Your task to perform on an android device: turn on the 12-hour format for clock Image 0: 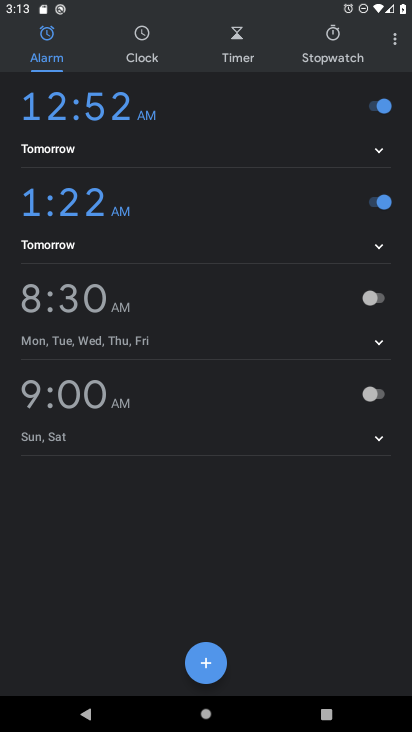
Step 0: click (393, 36)
Your task to perform on an android device: turn on the 12-hour format for clock Image 1: 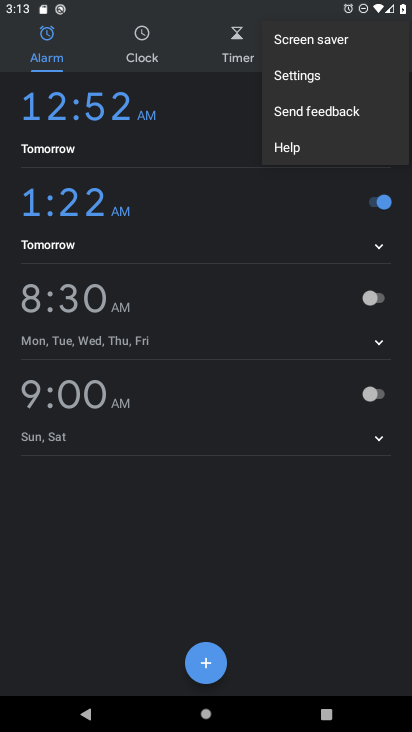
Step 1: click (332, 77)
Your task to perform on an android device: turn on the 12-hour format for clock Image 2: 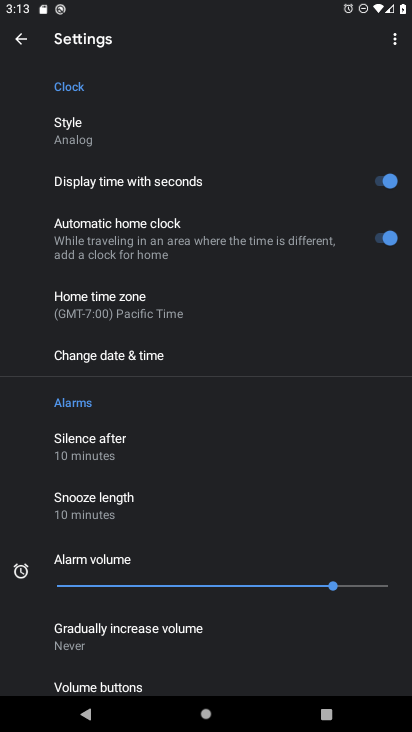
Step 2: click (219, 343)
Your task to perform on an android device: turn on the 12-hour format for clock Image 3: 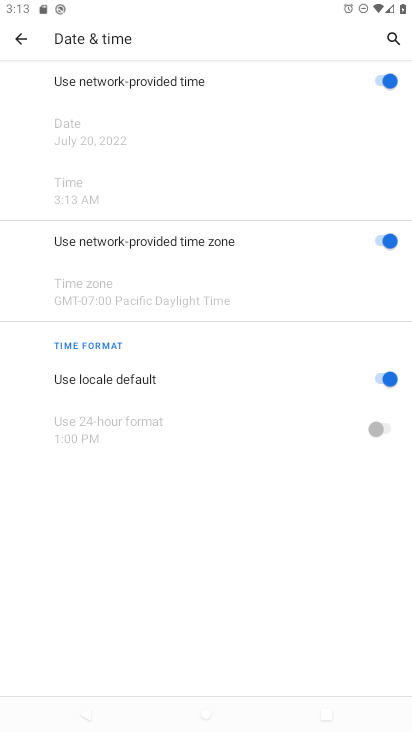
Step 3: task complete